Your task to perform on an android device: When is my next meeting? Image 0: 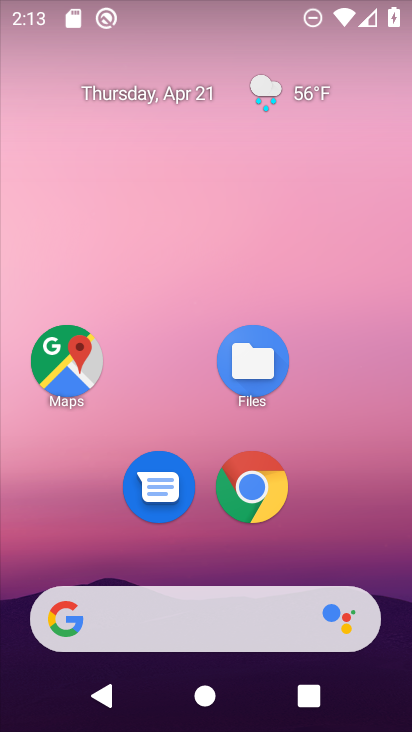
Step 0: drag from (382, 547) to (335, 240)
Your task to perform on an android device: When is my next meeting? Image 1: 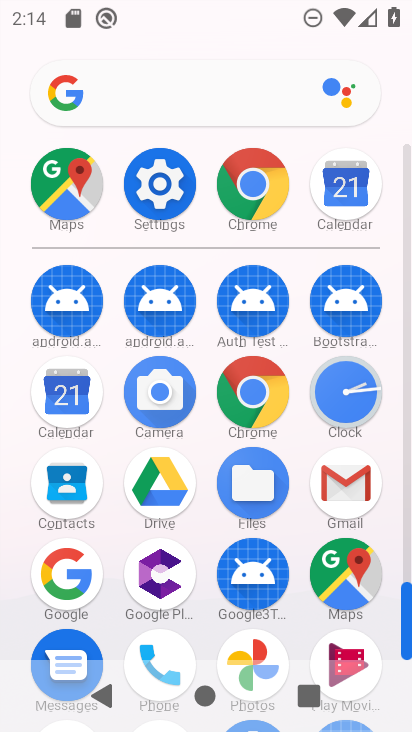
Step 1: drag from (298, 530) to (308, 198)
Your task to perform on an android device: When is my next meeting? Image 2: 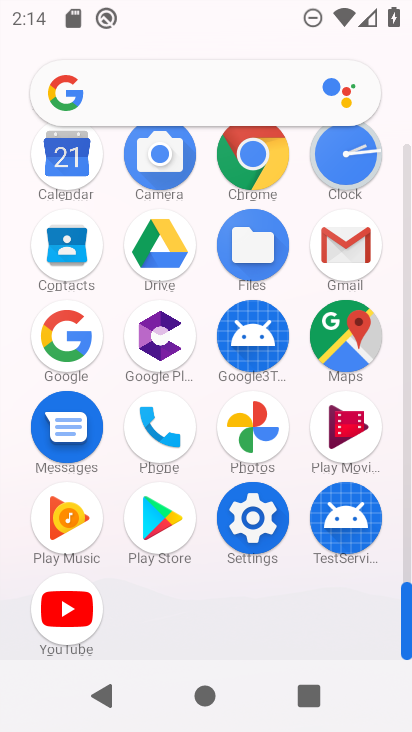
Step 2: click (55, 161)
Your task to perform on an android device: When is my next meeting? Image 3: 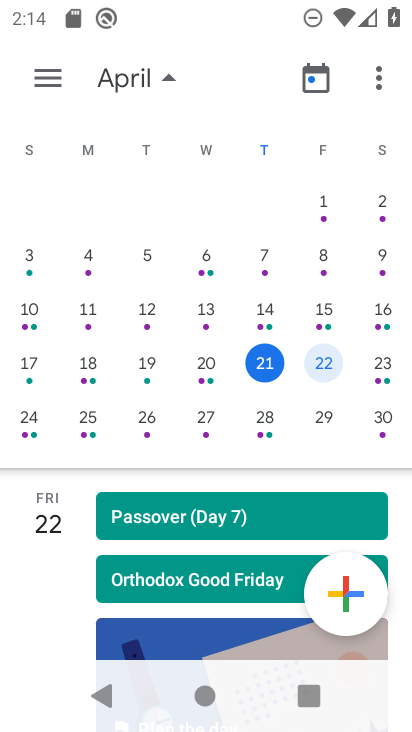
Step 3: task complete